Your task to perform on an android device: Go to display settings Image 0: 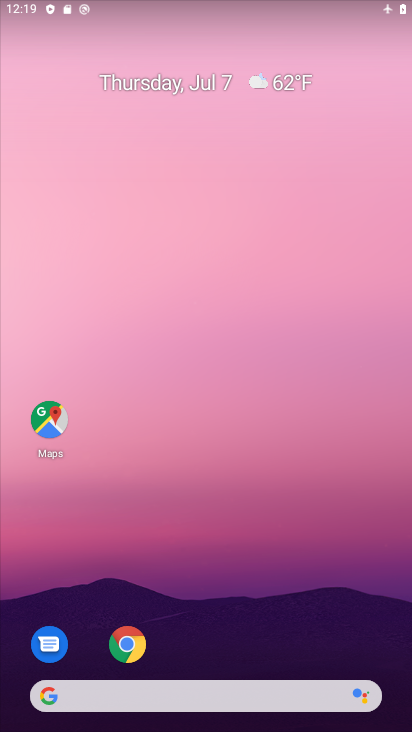
Step 0: drag from (180, 668) to (298, 150)
Your task to perform on an android device: Go to display settings Image 1: 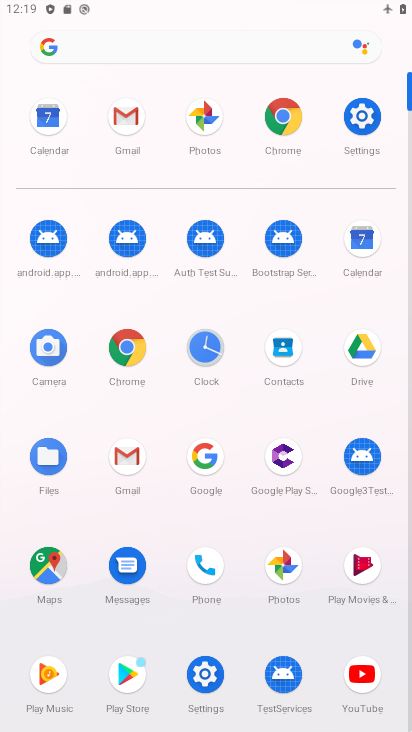
Step 1: click (225, 683)
Your task to perform on an android device: Go to display settings Image 2: 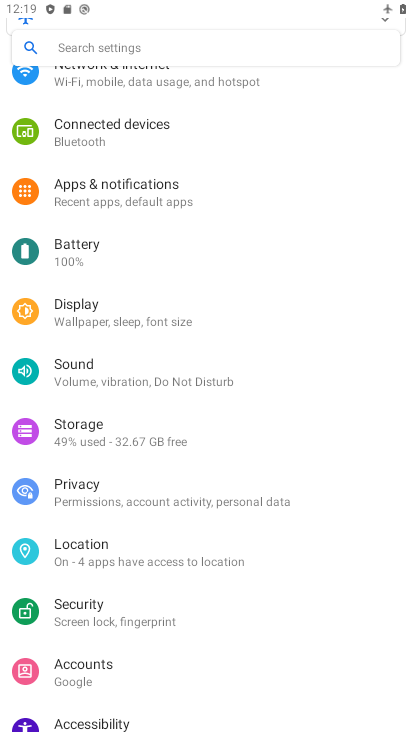
Step 2: click (172, 333)
Your task to perform on an android device: Go to display settings Image 3: 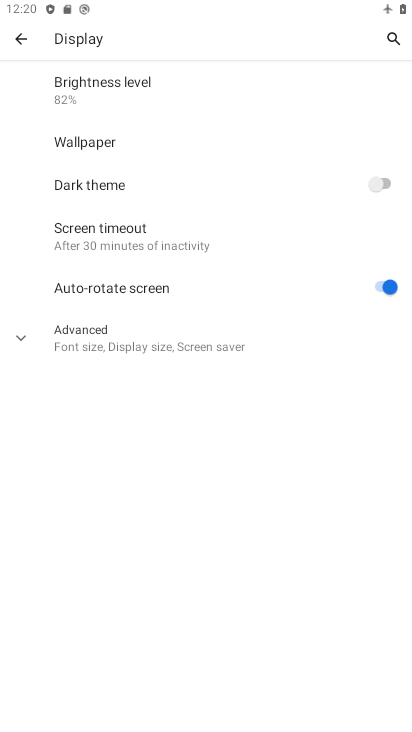
Step 3: task complete